Your task to perform on an android device: change the clock style Image 0: 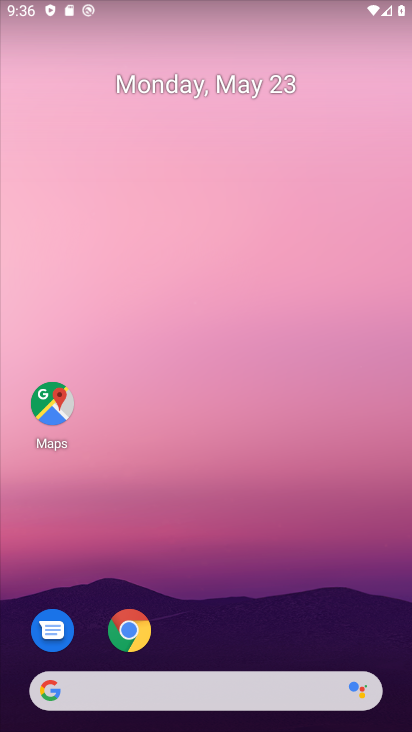
Step 0: click (231, 151)
Your task to perform on an android device: change the clock style Image 1: 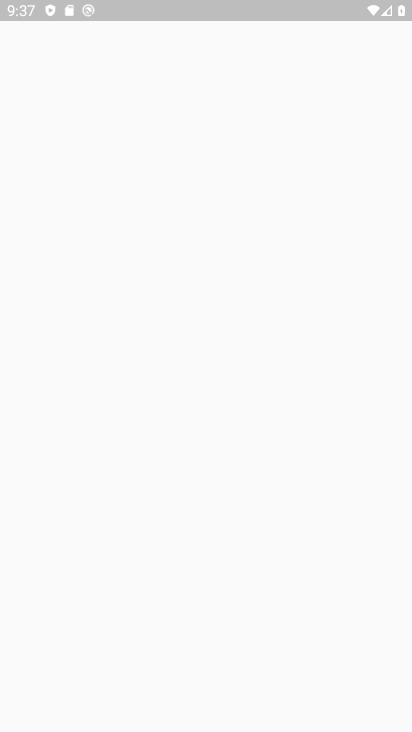
Step 1: press home button
Your task to perform on an android device: change the clock style Image 2: 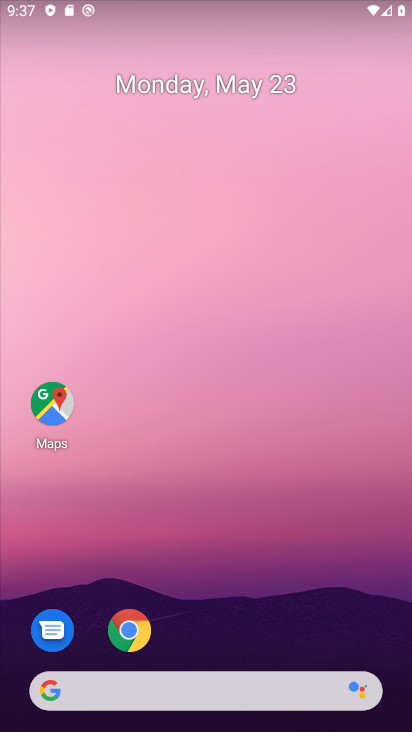
Step 2: drag from (197, 691) to (221, 19)
Your task to perform on an android device: change the clock style Image 3: 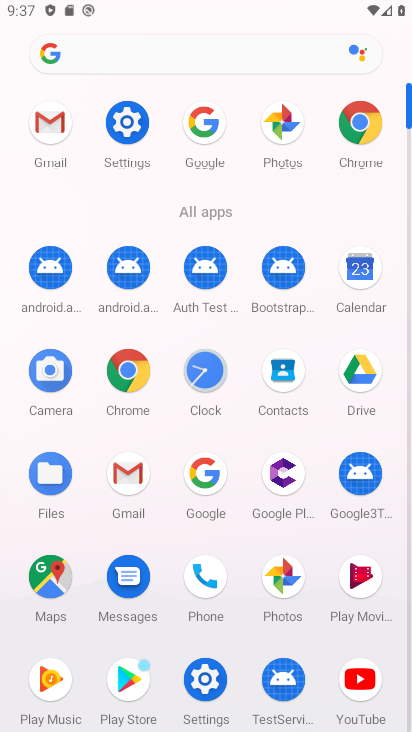
Step 3: click (203, 370)
Your task to perform on an android device: change the clock style Image 4: 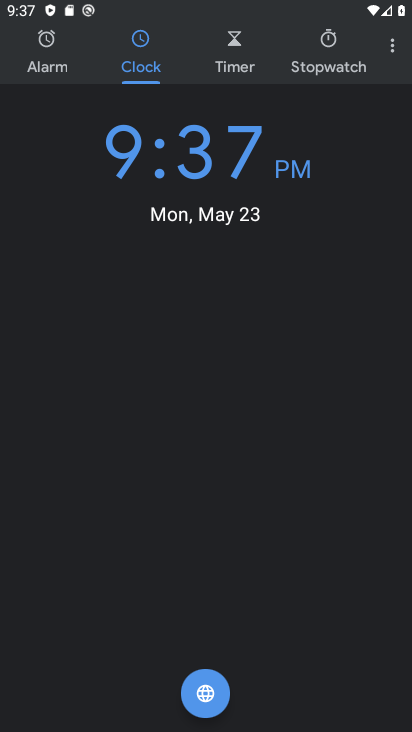
Step 4: click (401, 44)
Your task to perform on an android device: change the clock style Image 5: 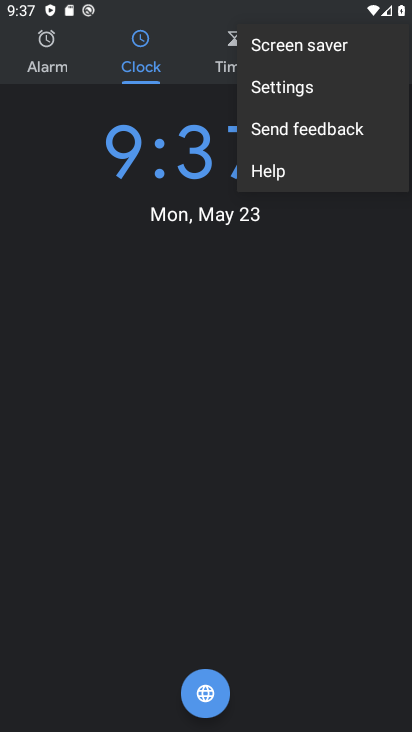
Step 5: click (299, 86)
Your task to perform on an android device: change the clock style Image 6: 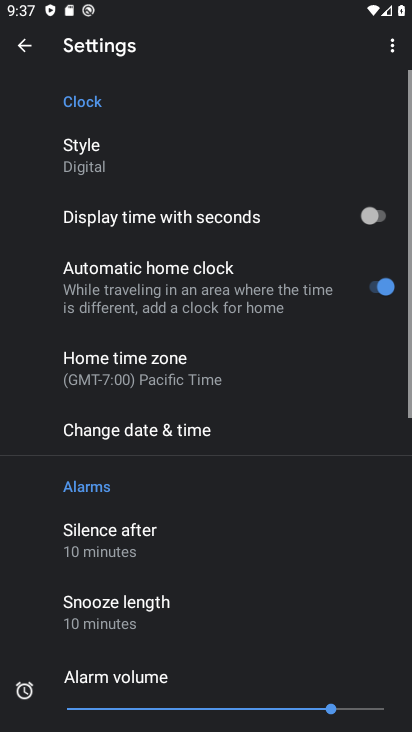
Step 6: click (147, 155)
Your task to perform on an android device: change the clock style Image 7: 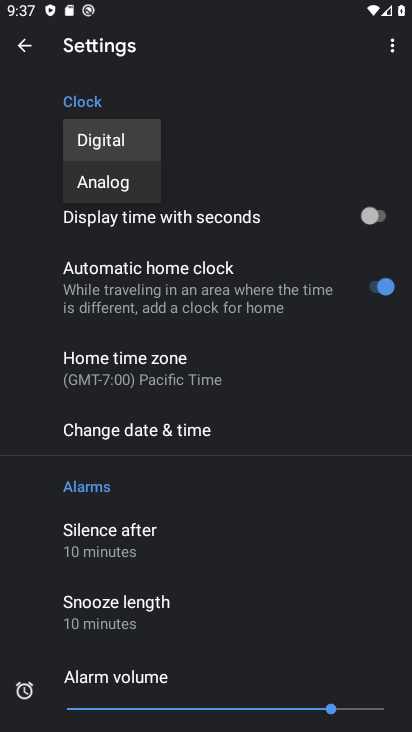
Step 7: click (122, 186)
Your task to perform on an android device: change the clock style Image 8: 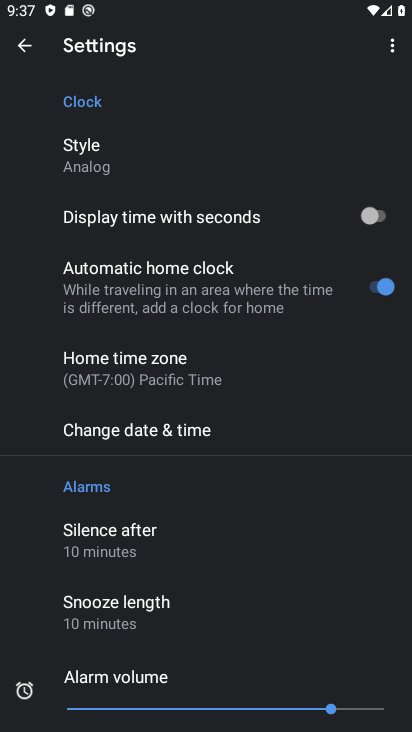
Step 8: task complete